Your task to perform on an android device: turn off translation in the chrome app Image 0: 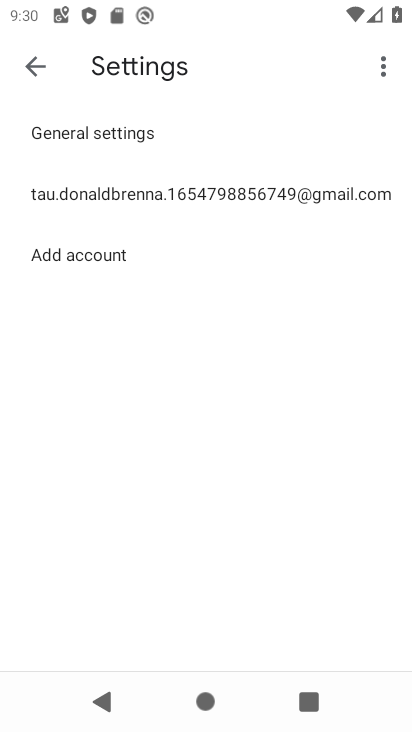
Step 0: press home button
Your task to perform on an android device: turn off translation in the chrome app Image 1: 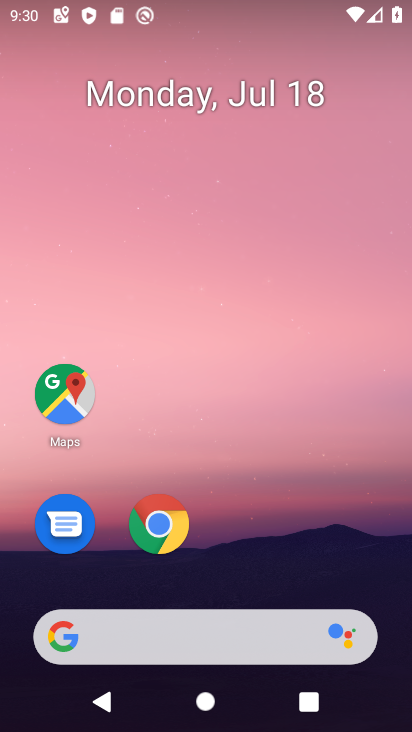
Step 1: click (163, 529)
Your task to perform on an android device: turn off translation in the chrome app Image 2: 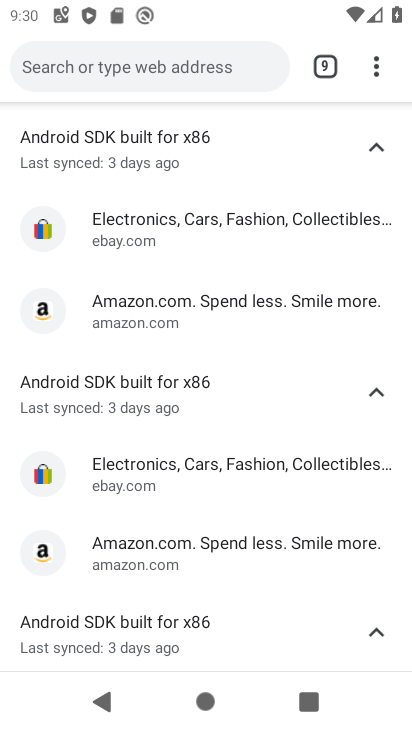
Step 2: click (371, 61)
Your task to perform on an android device: turn off translation in the chrome app Image 3: 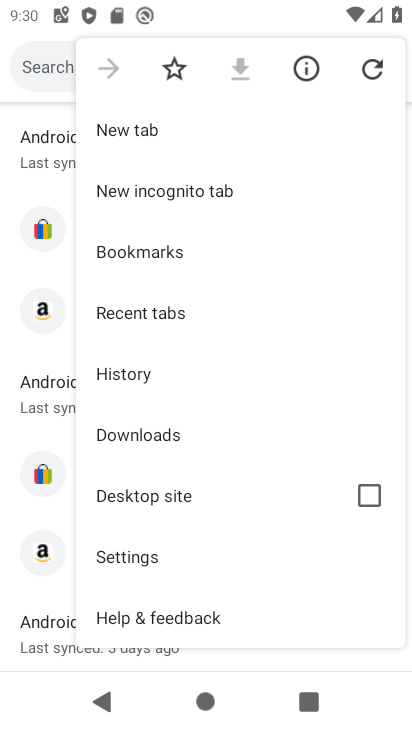
Step 3: click (167, 553)
Your task to perform on an android device: turn off translation in the chrome app Image 4: 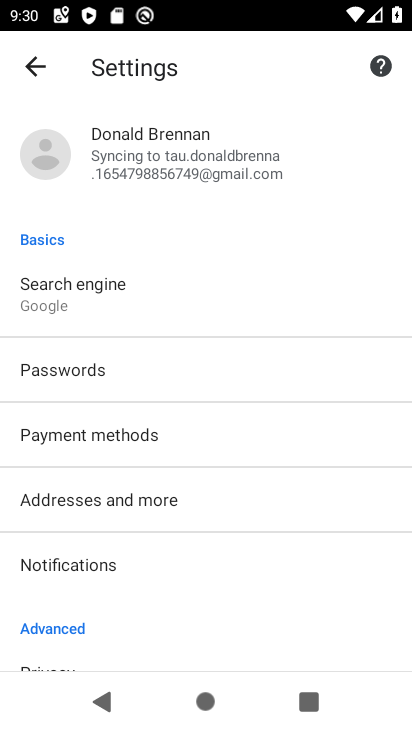
Step 4: drag from (166, 560) to (209, 210)
Your task to perform on an android device: turn off translation in the chrome app Image 5: 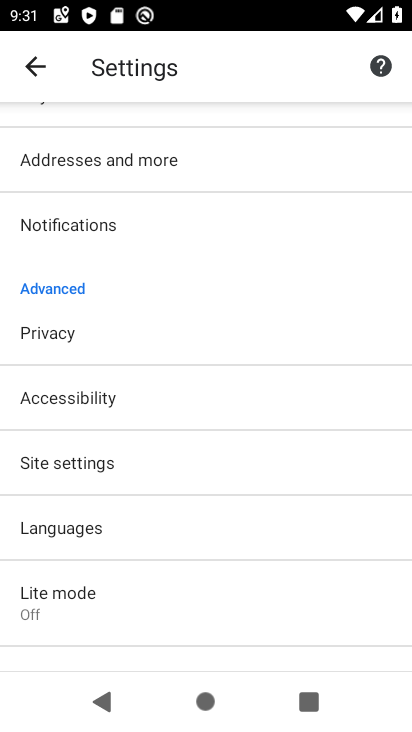
Step 5: click (149, 522)
Your task to perform on an android device: turn off translation in the chrome app Image 6: 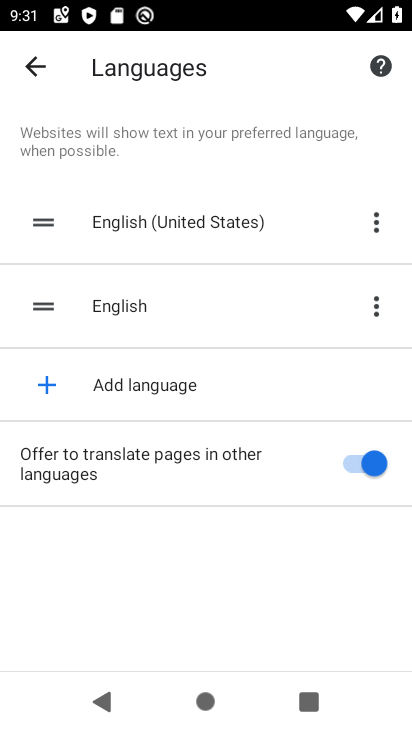
Step 6: click (360, 454)
Your task to perform on an android device: turn off translation in the chrome app Image 7: 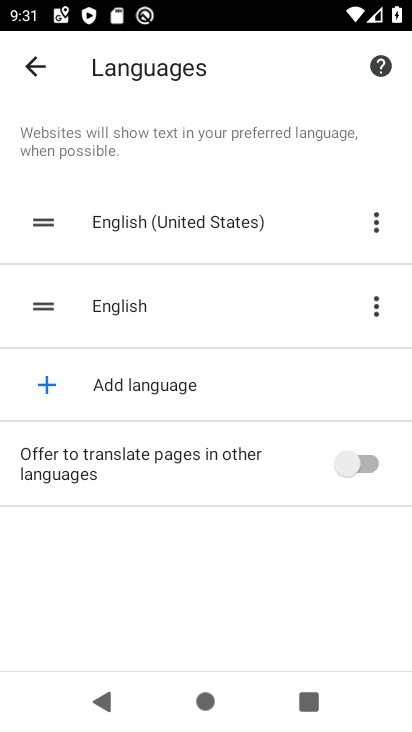
Step 7: task complete